Your task to perform on an android device: set the timer Image 0: 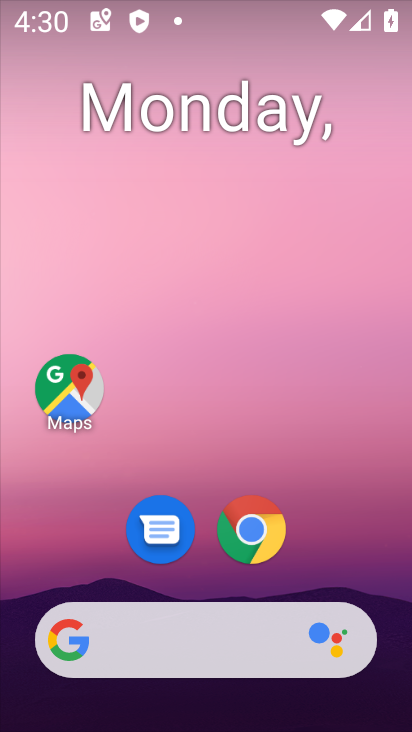
Step 0: drag from (197, 726) to (200, 194)
Your task to perform on an android device: set the timer Image 1: 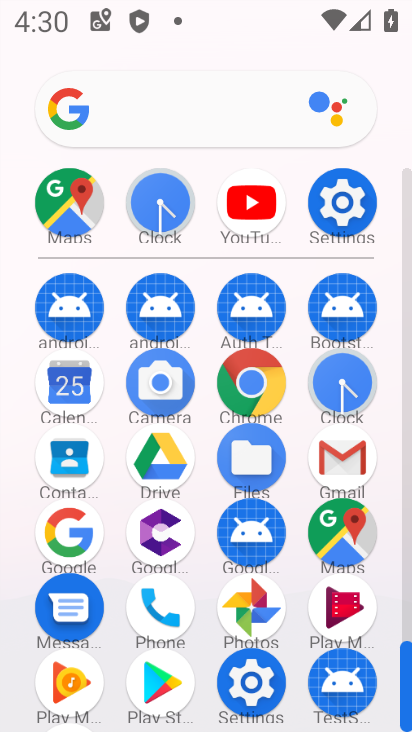
Step 1: click (340, 386)
Your task to perform on an android device: set the timer Image 2: 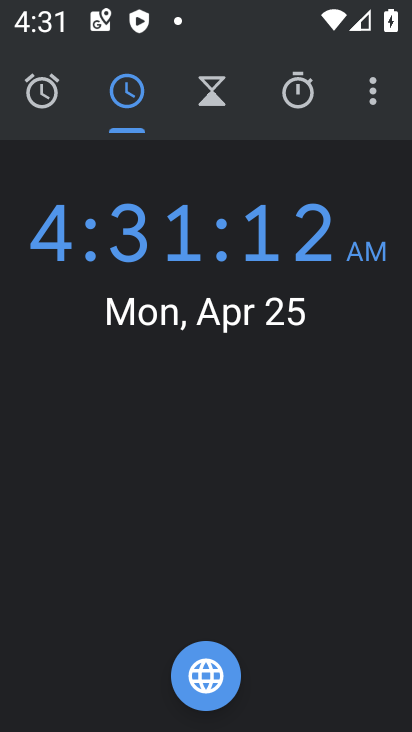
Step 2: click (217, 88)
Your task to perform on an android device: set the timer Image 3: 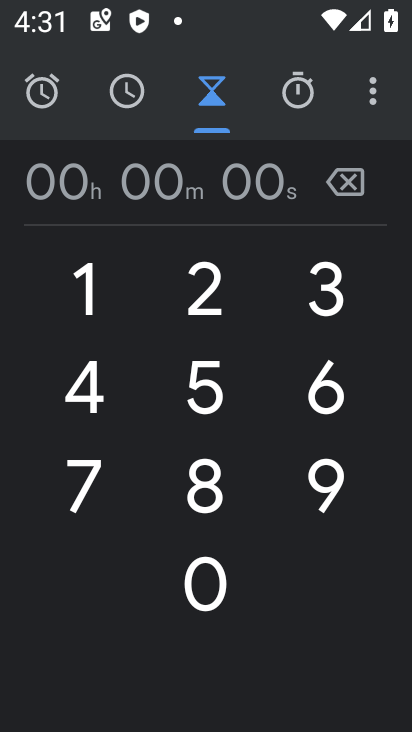
Step 3: click (213, 297)
Your task to perform on an android device: set the timer Image 4: 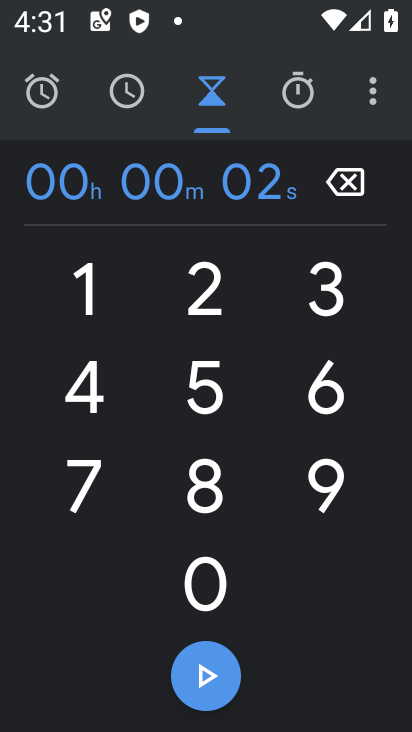
Step 4: click (201, 412)
Your task to perform on an android device: set the timer Image 5: 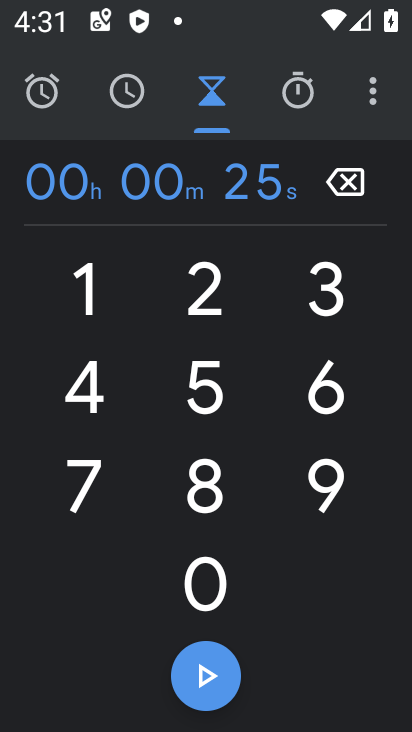
Step 5: click (205, 468)
Your task to perform on an android device: set the timer Image 6: 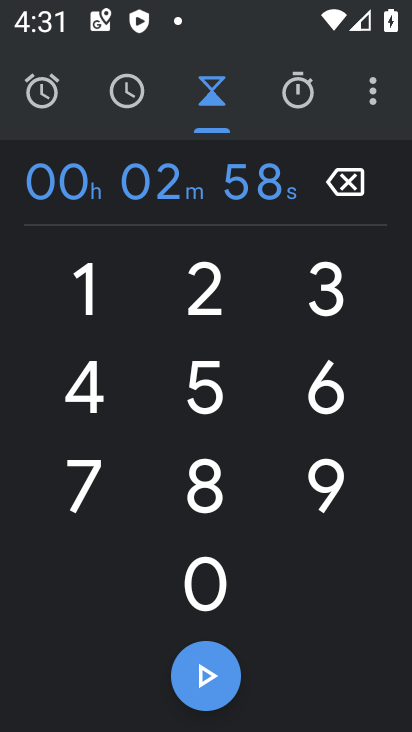
Step 6: click (200, 678)
Your task to perform on an android device: set the timer Image 7: 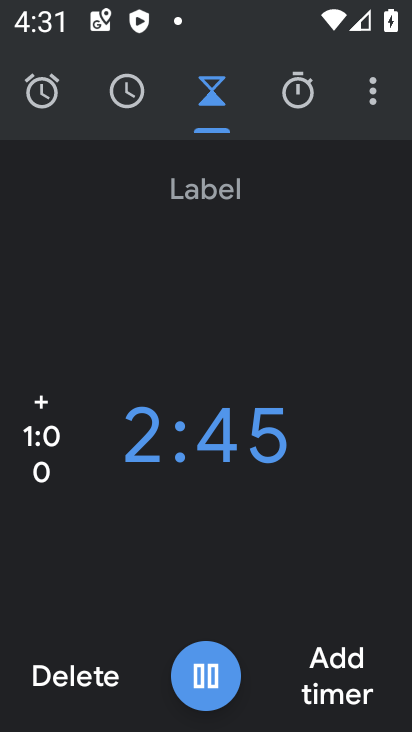
Step 7: task complete